Your task to perform on an android device: delete location history Image 0: 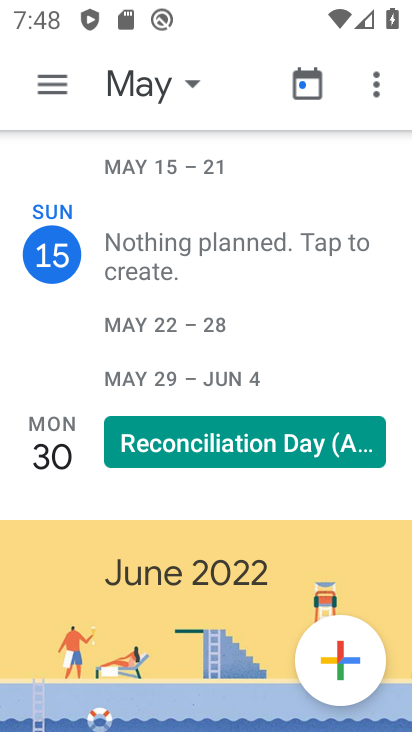
Step 0: press home button
Your task to perform on an android device: delete location history Image 1: 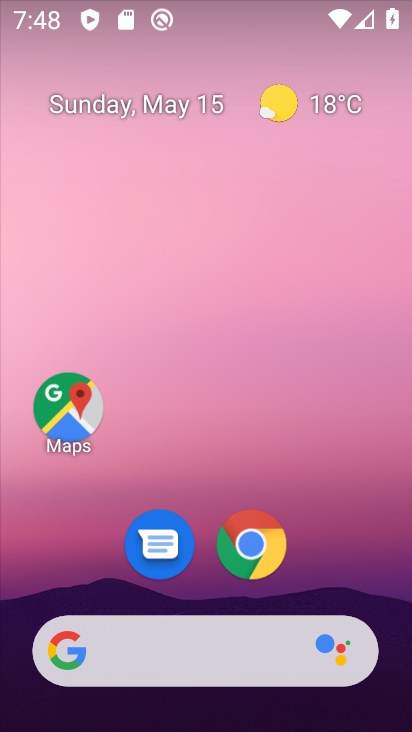
Step 1: drag from (327, 549) to (355, 149)
Your task to perform on an android device: delete location history Image 2: 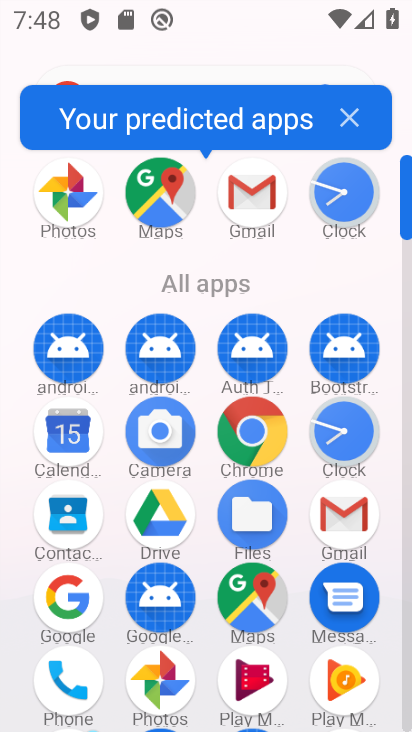
Step 2: drag from (198, 529) to (245, 219)
Your task to perform on an android device: delete location history Image 3: 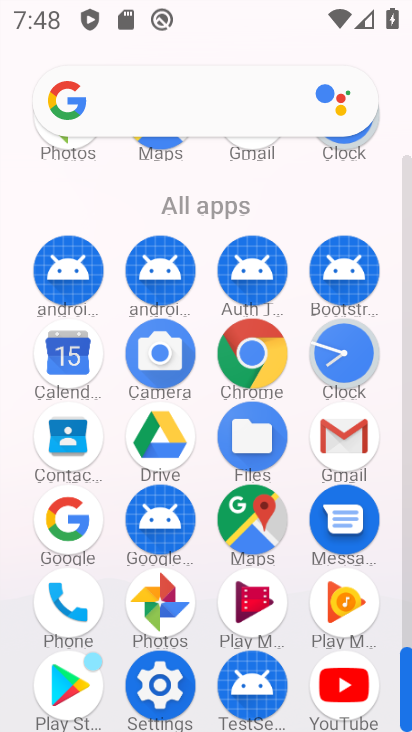
Step 3: click (152, 681)
Your task to perform on an android device: delete location history Image 4: 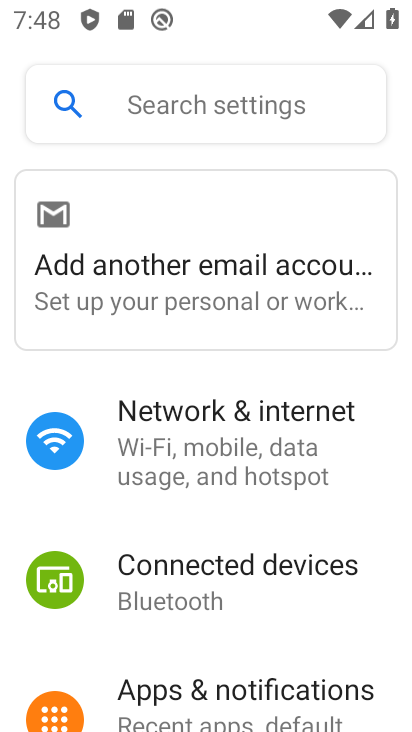
Step 4: drag from (239, 622) to (297, 166)
Your task to perform on an android device: delete location history Image 5: 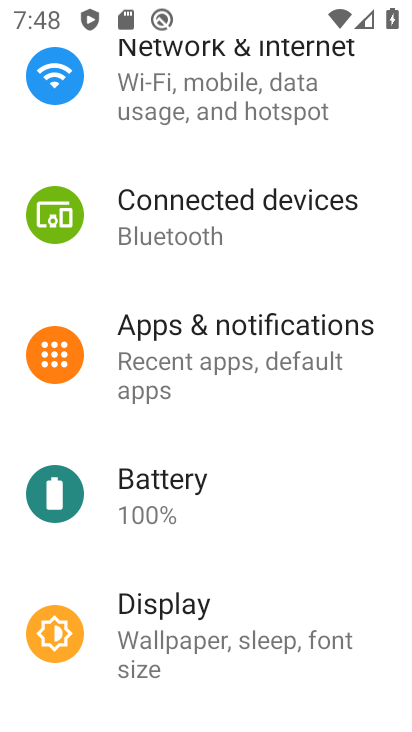
Step 5: drag from (294, 593) to (318, 252)
Your task to perform on an android device: delete location history Image 6: 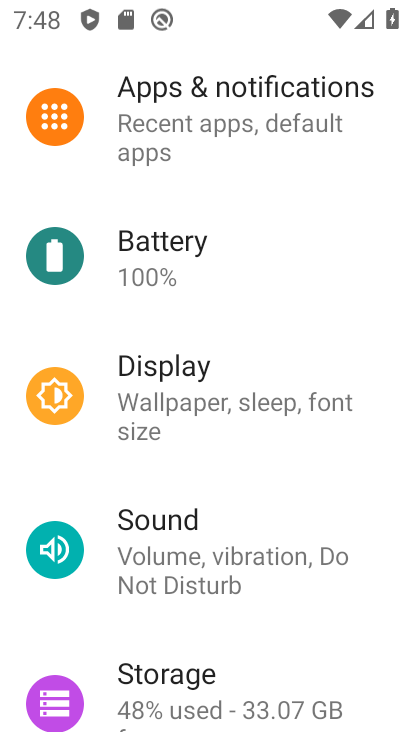
Step 6: drag from (287, 549) to (299, 185)
Your task to perform on an android device: delete location history Image 7: 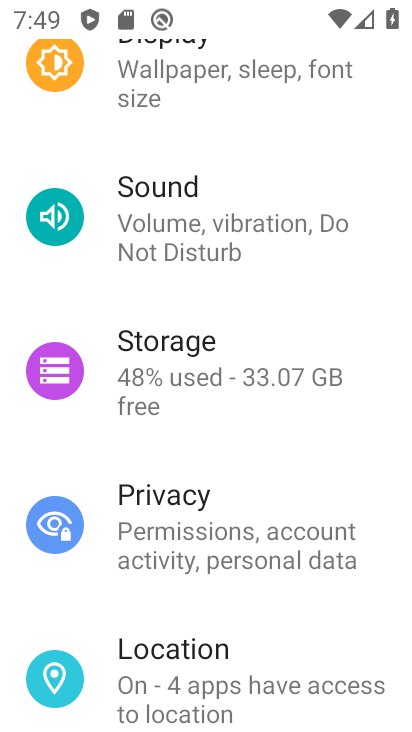
Step 7: drag from (257, 457) to (295, 211)
Your task to perform on an android device: delete location history Image 8: 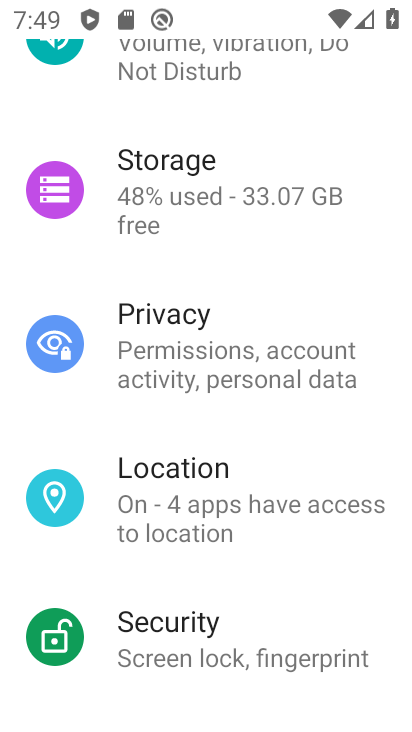
Step 8: click (216, 486)
Your task to perform on an android device: delete location history Image 9: 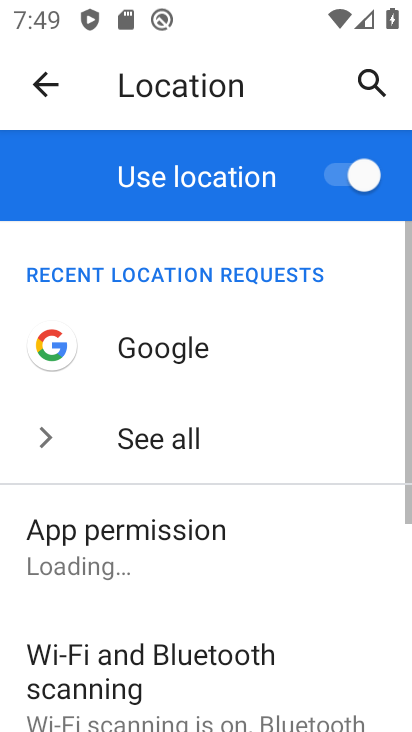
Step 9: drag from (216, 520) to (261, 117)
Your task to perform on an android device: delete location history Image 10: 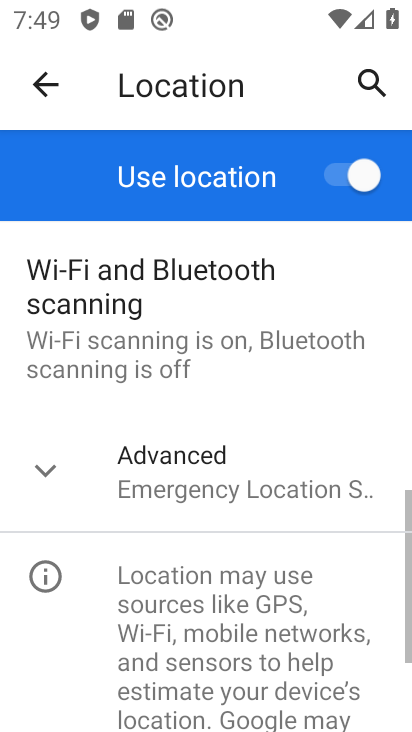
Step 10: click (182, 635)
Your task to perform on an android device: delete location history Image 11: 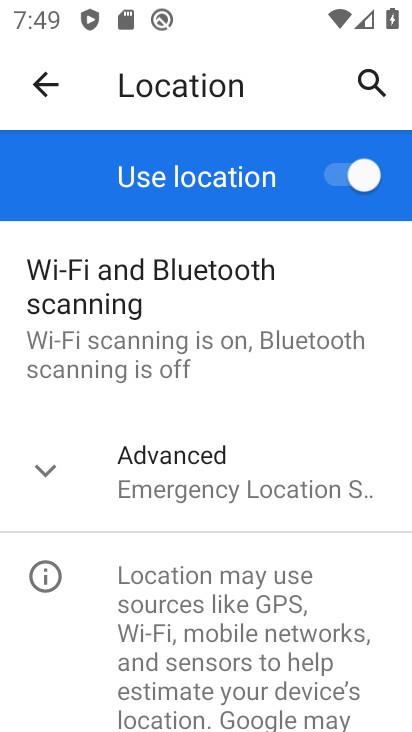
Step 11: click (216, 488)
Your task to perform on an android device: delete location history Image 12: 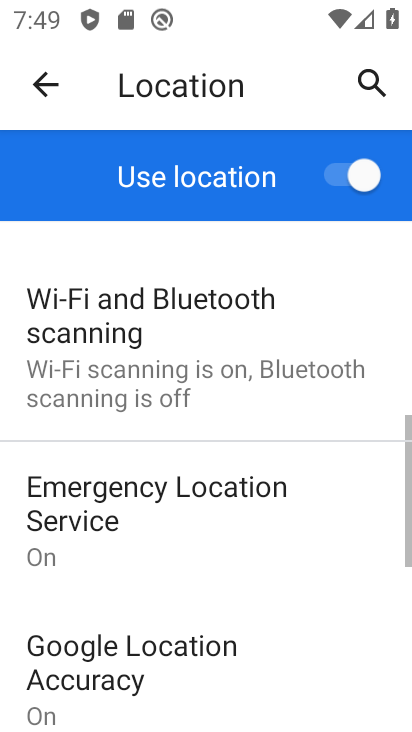
Step 12: drag from (205, 601) to (244, 215)
Your task to perform on an android device: delete location history Image 13: 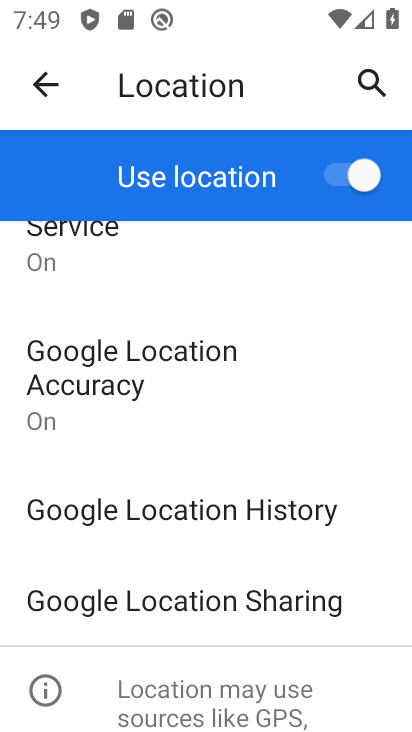
Step 13: click (209, 493)
Your task to perform on an android device: delete location history Image 14: 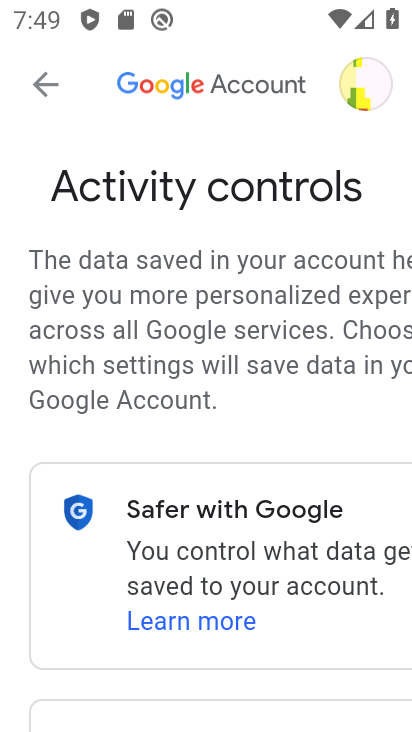
Step 14: drag from (203, 620) to (232, 209)
Your task to perform on an android device: delete location history Image 15: 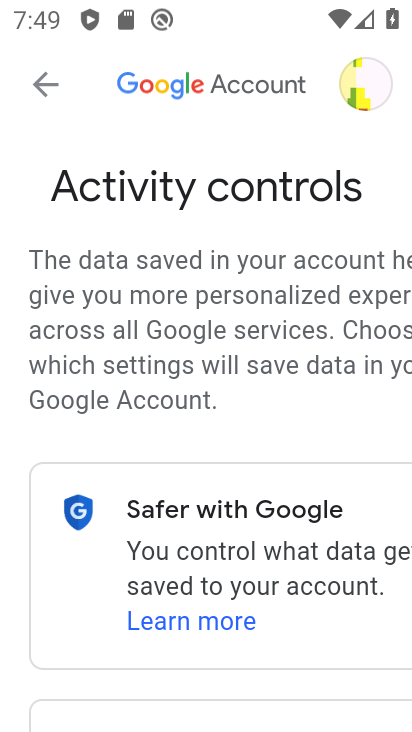
Step 15: drag from (242, 592) to (279, 168)
Your task to perform on an android device: delete location history Image 16: 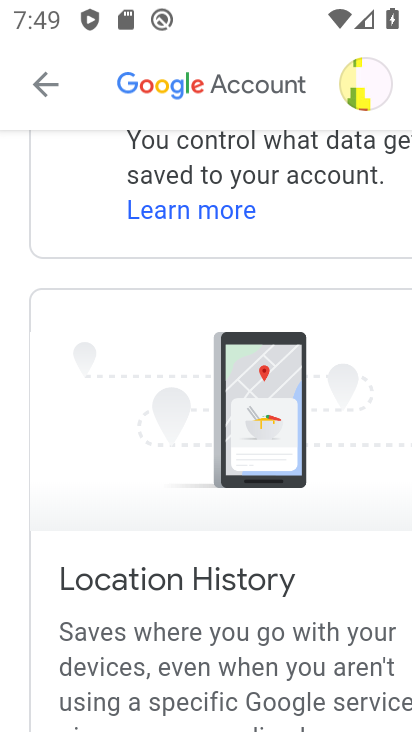
Step 16: drag from (216, 540) to (238, 209)
Your task to perform on an android device: delete location history Image 17: 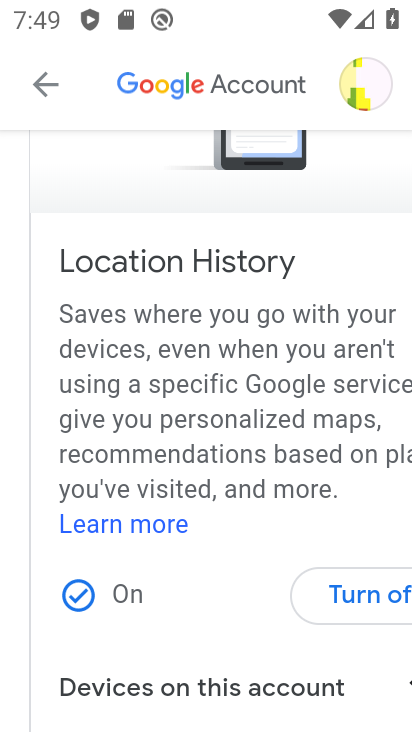
Step 17: drag from (234, 586) to (251, 209)
Your task to perform on an android device: delete location history Image 18: 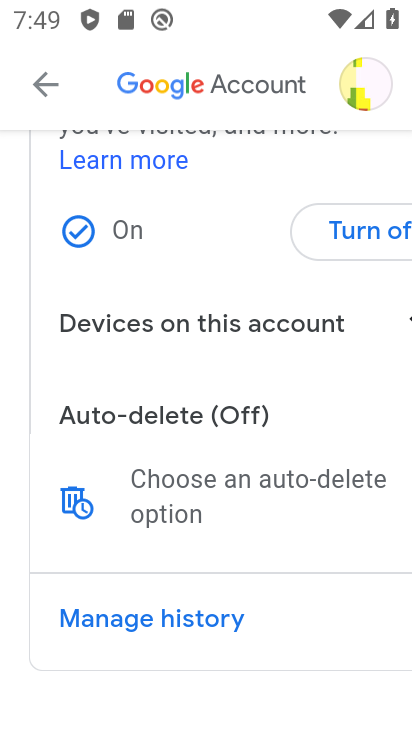
Step 18: drag from (208, 536) to (221, 299)
Your task to perform on an android device: delete location history Image 19: 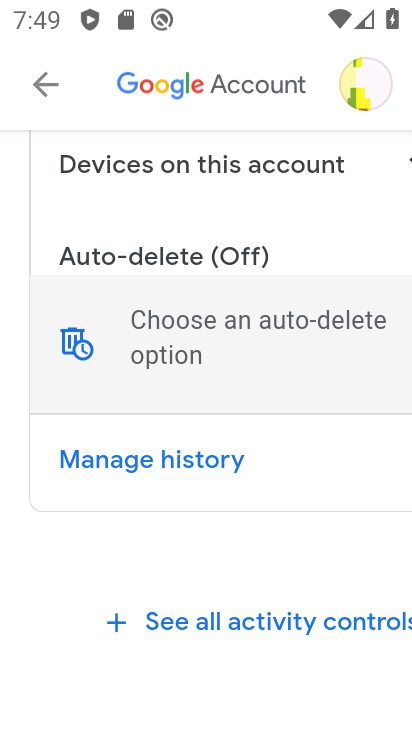
Step 19: click (78, 342)
Your task to perform on an android device: delete location history Image 20: 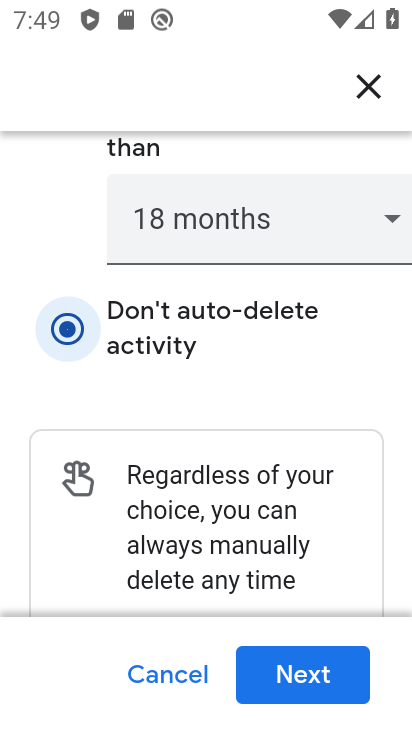
Step 20: drag from (288, 532) to (311, 236)
Your task to perform on an android device: delete location history Image 21: 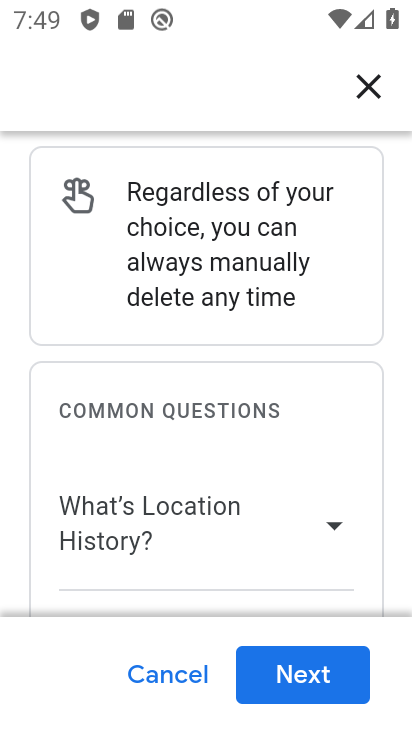
Step 21: drag from (294, 612) to (333, 225)
Your task to perform on an android device: delete location history Image 22: 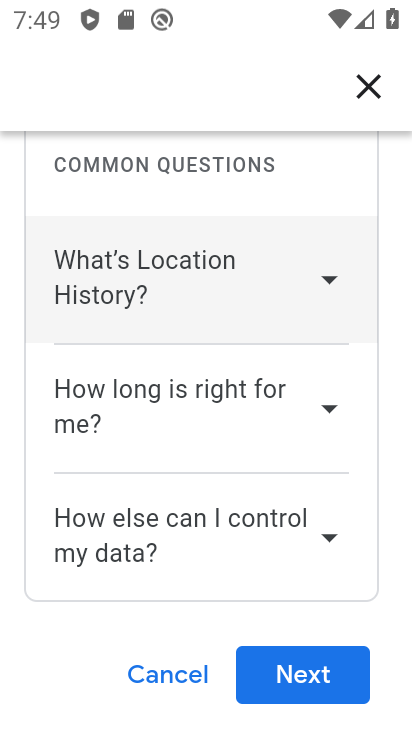
Step 22: drag from (260, 575) to (296, 245)
Your task to perform on an android device: delete location history Image 23: 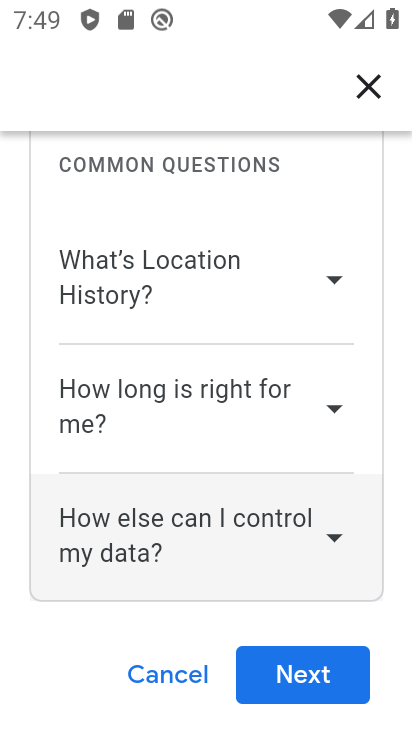
Step 23: click (293, 664)
Your task to perform on an android device: delete location history Image 24: 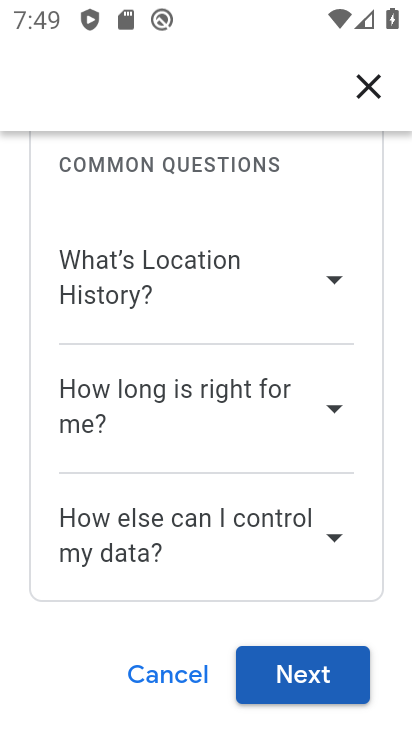
Step 24: click (321, 698)
Your task to perform on an android device: delete location history Image 25: 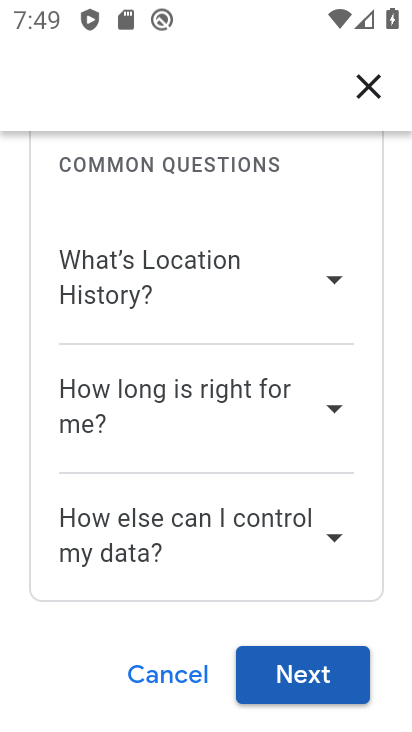
Step 25: click (314, 670)
Your task to perform on an android device: delete location history Image 26: 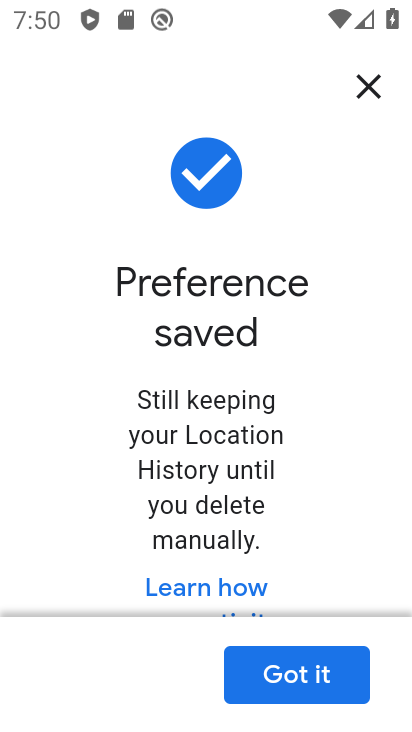
Step 26: click (343, 678)
Your task to perform on an android device: delete location history Image 27: 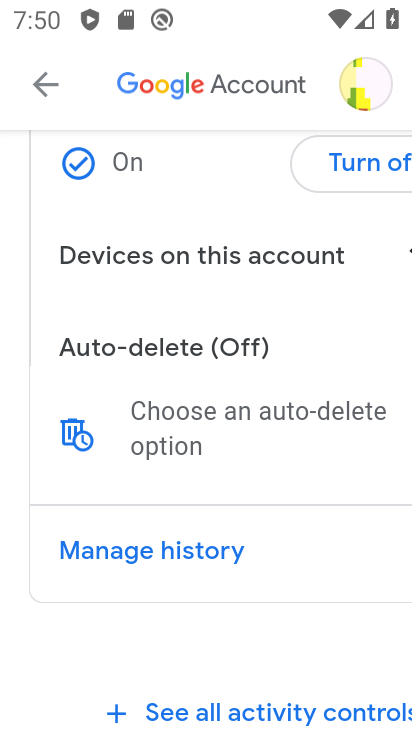
Step 27: task complete